Your task to perform on an android device: Clear the shopping cart on ebay.com. Search for asus rog on ebay.com, select the first entry, and add it to the cart. Image 0: 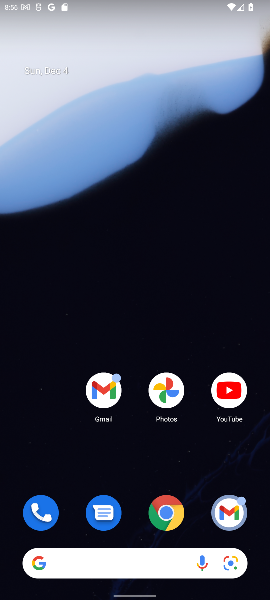
Step 0: click (170, 511)
Your task to perform on an android device: Clear the shopping cart on ebay.com. Search for asus rog on ebay.com, select the first entry, and add it to the cart. Image 1: 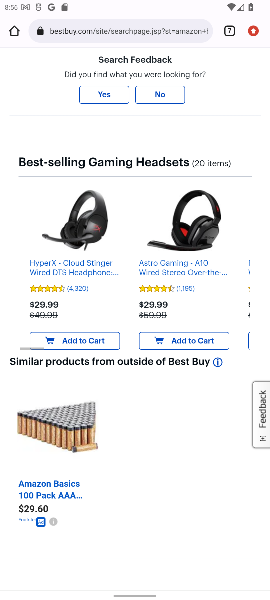
Step 1: click (232, 28)
Your task to perform on an android device: Clear the shopping cart on ebay.com. Search for asus rog on ebay.com, select the first entry, and add it to the cart. Image 2: 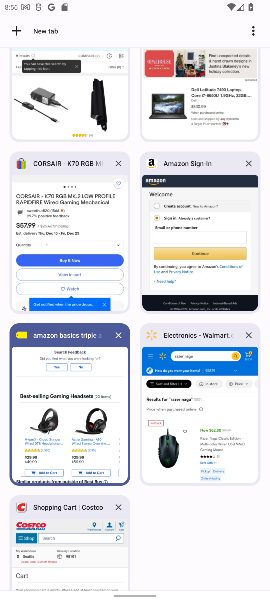
Step 2: click (78, 229)
Your task to perform on an android device: Clear the shopping cart on ebay.com. Search for asus rog on ebay.com, select the first entry, and add it to the cart. Image 3: 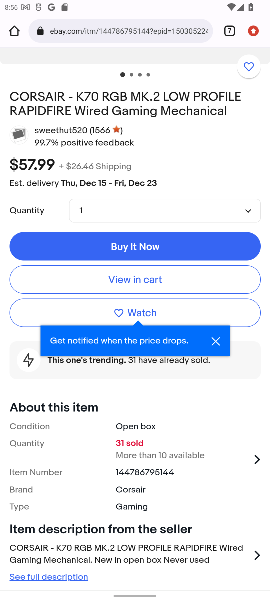
Step 3: click (163, 276)
Your task to perform on an android device: Clear the shopping cart on ebay.com. Search for asus rog on ebay.com, select the first entry, and add it to the cart. Image 4: 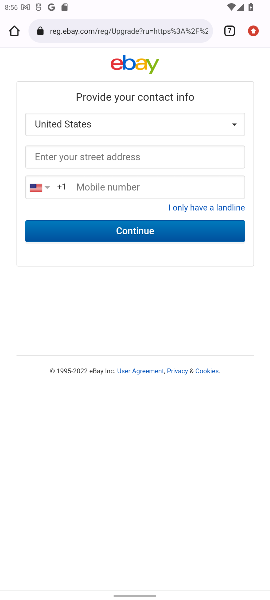
Step 4: press back button
Your task to perform on an android device: Clear the shopping cart on ebay.com. Search for asus rog on ebay.com, select the first entry, and add it to the cart. Image 5: 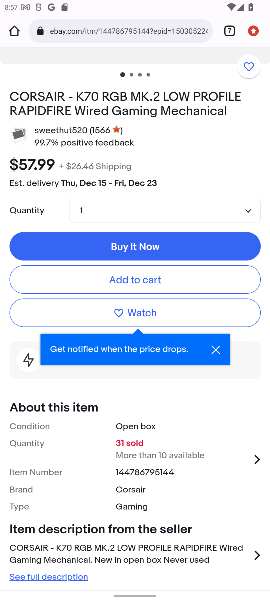
Step 5: drag from (222, 132) to (204, 565)
Your task to perform on an android device: Clear the shopping cart on ebay.com. Search for asus rog on ebay.com, select the first entry, and add it to the cart. Image 6: 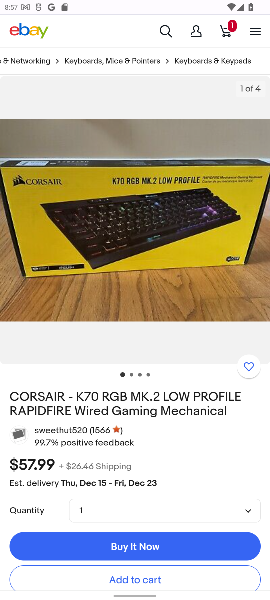
Step 6: click (229, 31)
Your task to perform on an android device: Clear the shopping cart on ebay.com. Search for asus rog on ebay.com, select the first entry, and add it to the cart. Image 7: 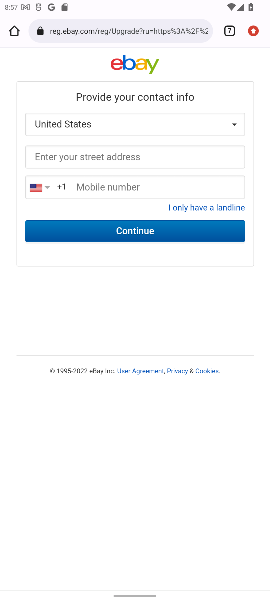
Step 7: press back button
Your task to perform on an android device: Clear the shopping cart on ebay.com. Search for asus rog on ebay.com, select the first entry, and add it to the cart. Image 8: 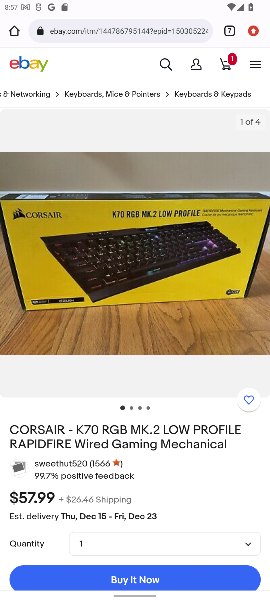
Step 8: click (164, 61)
Your task to perform on an android device: Clear the shopping cart on ebay.com. Search for asus rog on ebay.com, select the first entry, and add it to the cart. Image 9: 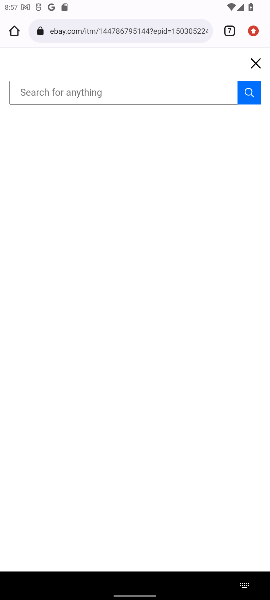
Step 9: type "asus rog"
Your task to perform on an android device: Clear the shopping cart on ebay.com. Search for asus rog on ebay.com, select the first entry, and add it to the cart. Image 10: 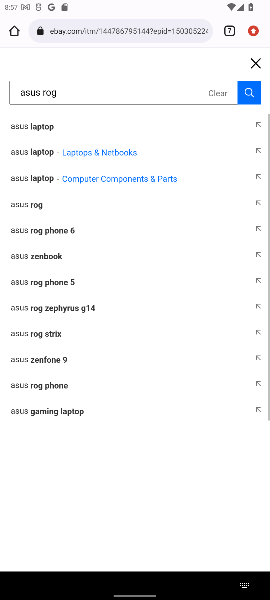
Step 10: click (29, 146)
Your task to perform on an android device: Clear the shopping cart on ebay.com. Search for asus rog on ebay.com, select the first entry, and add it to the cart. Image 11: 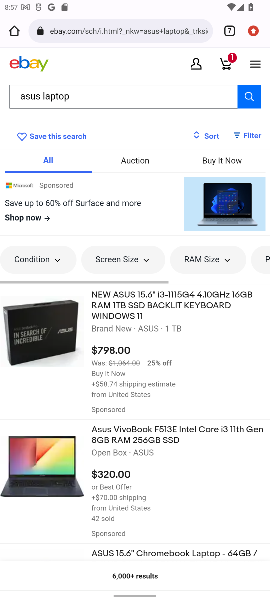
Step 11: drag from (178, 526) to (187, 168)
Your task to perform on an android device: Clear the shopping cart on ebay.com. Search for asus rog on ebay.com, select the first entry, and add it to the cart. Image 12: 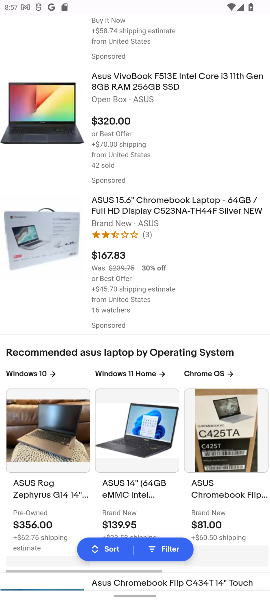
Step 12: click (34, 499)
Your task to perform on an android device: Clear the shopping cart on ebay.com. Search for asus rog on ebay.com, select the first entry, and add it to the cart. Image 13: 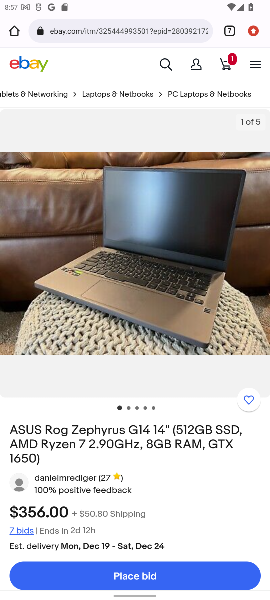
Step 13: press back button
Your task to perform on an android device: Clear the shopping cart on ebay.com. Search for asus rog on ebay.com, select the first entry, and add it to the cart. Image 14: 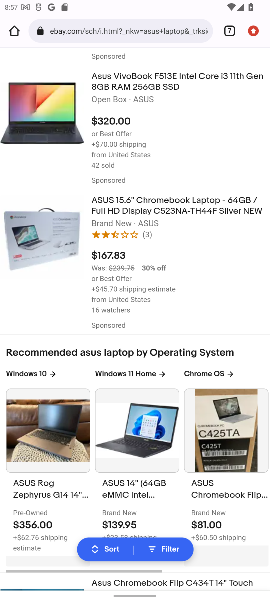
Step 14: drag from (174, 135) to (122, 492)
Your task to perform on an android device: Clear the shopping cart on ebay.com. Search for asus rog on ebay.com, select the first entry, and add it to the cart. Image 15: 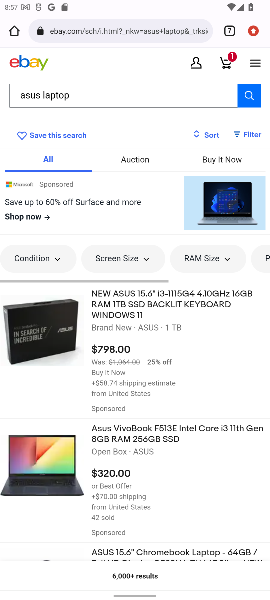
Step 15: click (126, 296)
Your task to perform on an android device: Clear the shopping cart on ebay.com. Search for asus rog on ebay.com, select the first entry, and add it to the cart. Image 16: 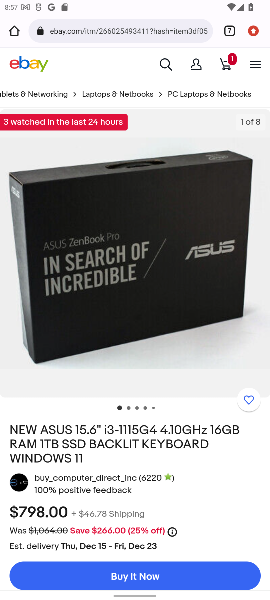
Step 16: drag from (194, 540) to (245, 166)
Your task to perform on an android device: Clear the shopping cart on ebay.com. Search for asus rog on ebay.com, select the first entry, and add it to the cart. Image 17: 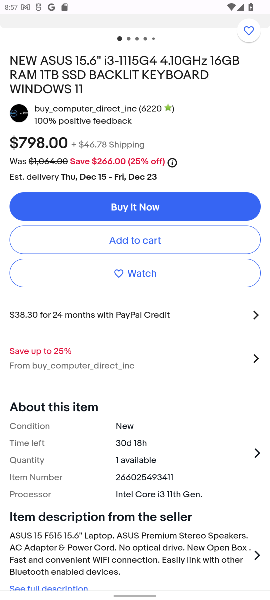
Step 17: click (157, 236)
Your task to perform on an android device: Clear the shopping cart on ebay.com. Search for asus rog on ebay.com, select the first entry, and add it to the cart. Image 18: 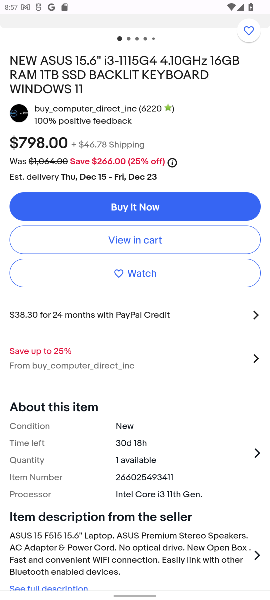
Step 18: task complete